Your task to perform on an android device: Open my contact list Image 0: 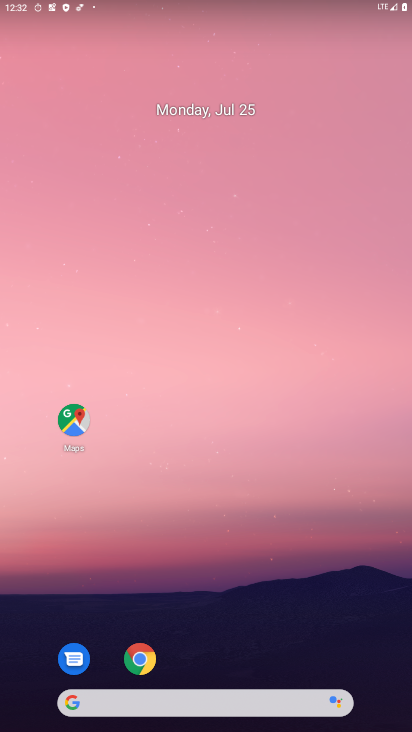
Step 0: drag from (45, 696) to (164, 208)
Your task to perform on an android device: Open my contact list Image 1: 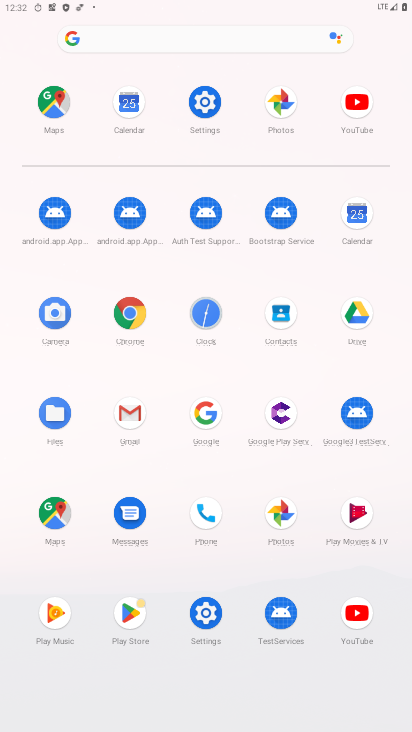
Step 1: click (198, 520)
Your task to perform on an android device: Open my contact list Image 2: 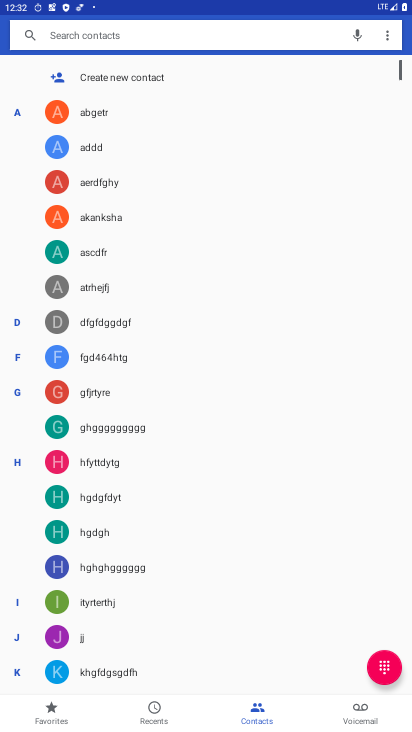
Step 2: click (79, 72)
Your task to perform on an android device: Open my contact list Image 3: 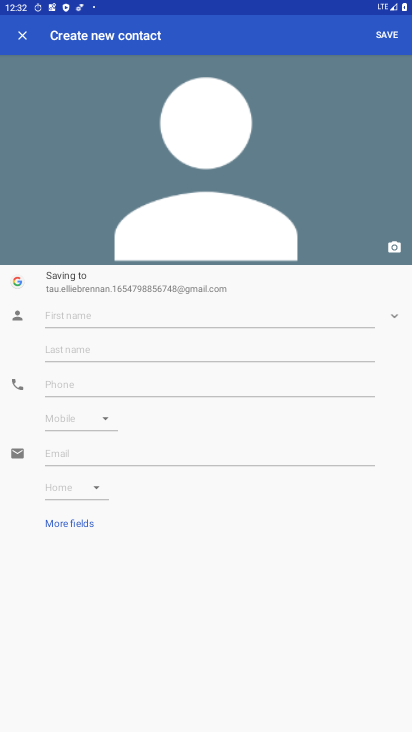
Step 3: click (81, 306)
Your task to perform on an android device: Open my contact list Image 4: 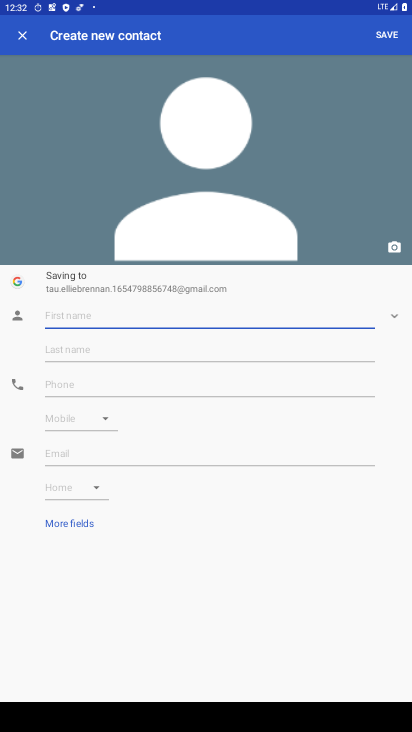
Step 4: type "rewg5yj"
Your task to perform on an android device: Open my contact list Image 5: 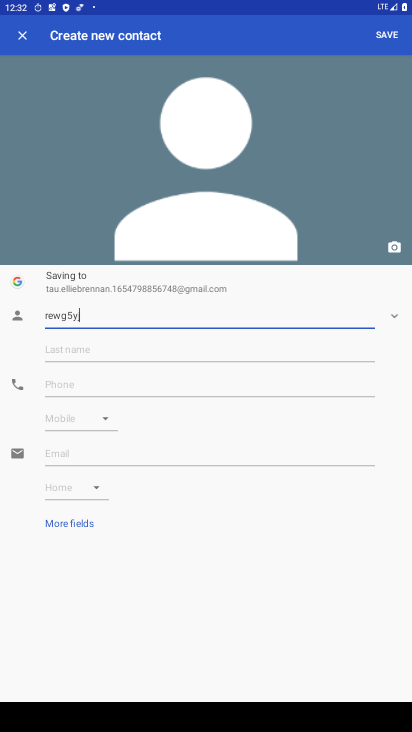
Step 5: type ""
Your task to perform on an android device: Open my contact list Image 6: 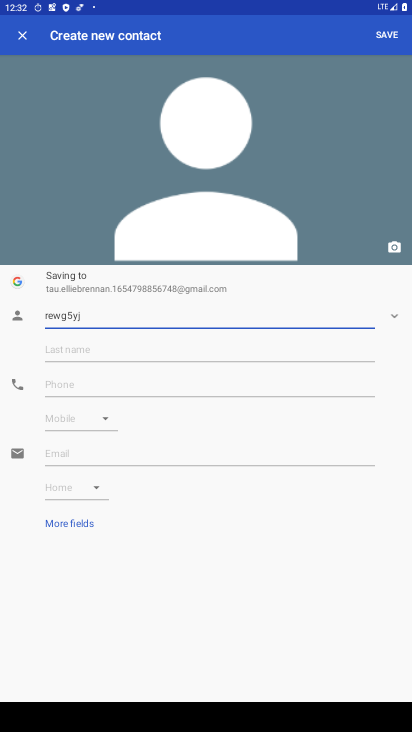
Step 6: click (380, 35)
Your task to perform on an android device: Open my contact list Image 7: 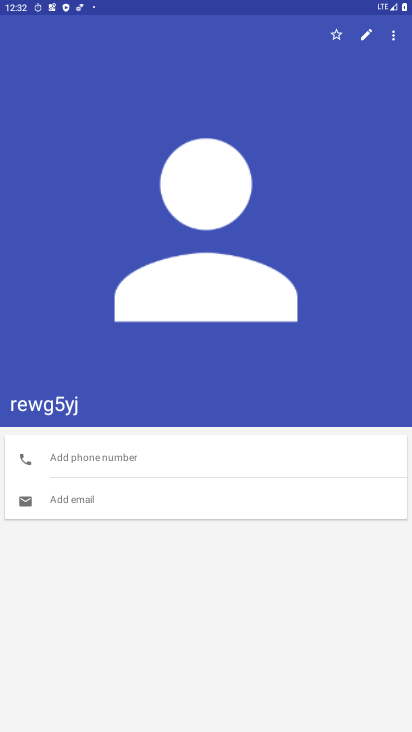
Step 7: task complete